Your task to perform on an android device: turn off picture-in-picture Image 0: 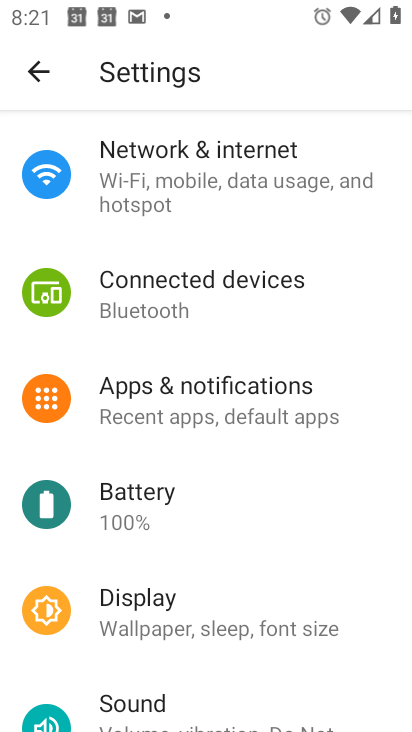
Step 0: press home button
Your task to perform on an android device: turn off picture-in-picture Image 1: 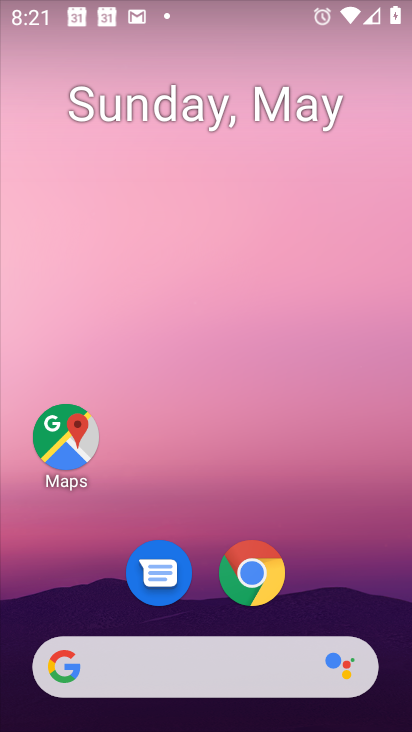
Step 1: click (262, 548)
Your task to perform on an android device: turn off picture-in-picture Image 2: 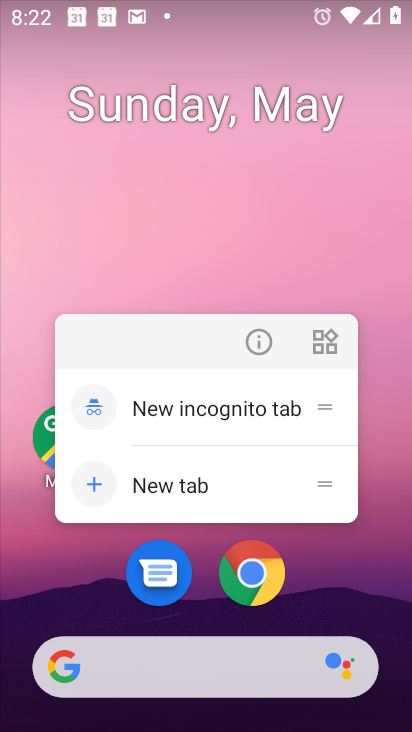
Step 2: click (258, 339)
Your task to perform on an android device: turn off picture-in-picture Image 3: 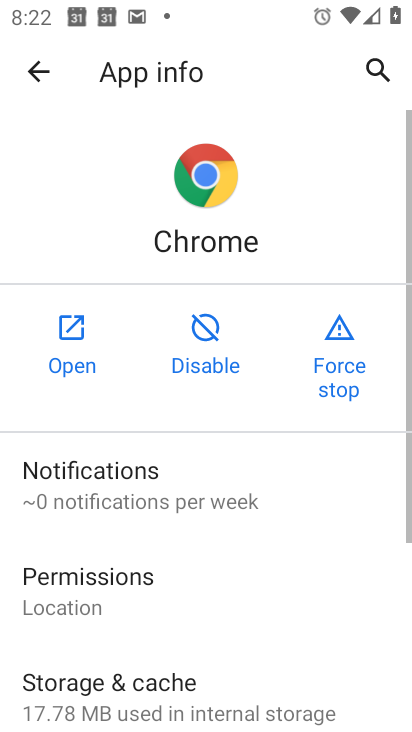
Step 3: drag from (243, 601) to (241, 132)
Your task to perform on an android device: turn off picture-in-picture Image 4: 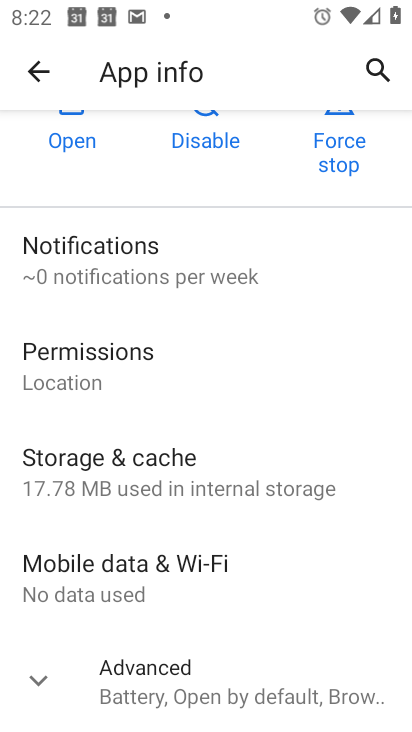
Step 4: click (37, 678)
Your task to perform on an android device: turn off picture-in-picture Image 5: 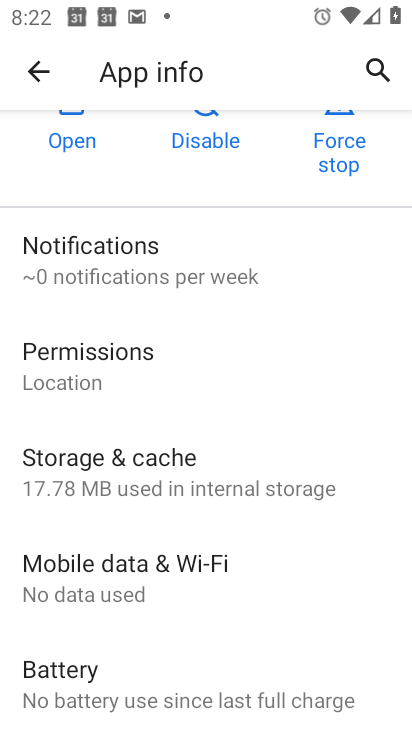
Step 5: drag from (285, 616) to (267, 143)
Your task to perform on an android device: turn off picture-in-picture Image 6: 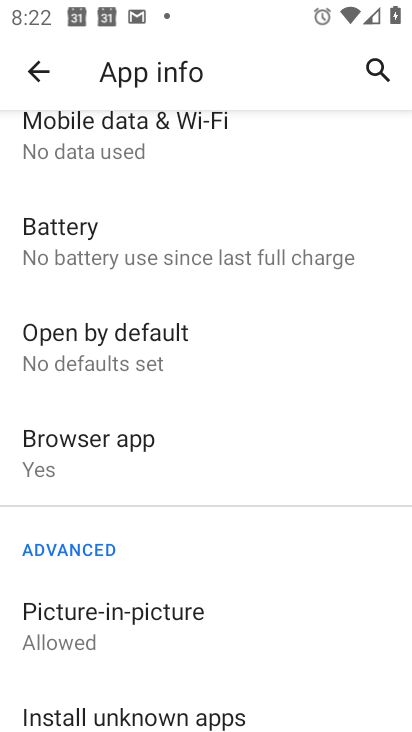
Step 6: click (197, 632)
Your task to perform on an android device: turn off picture-in-picture Image 7: 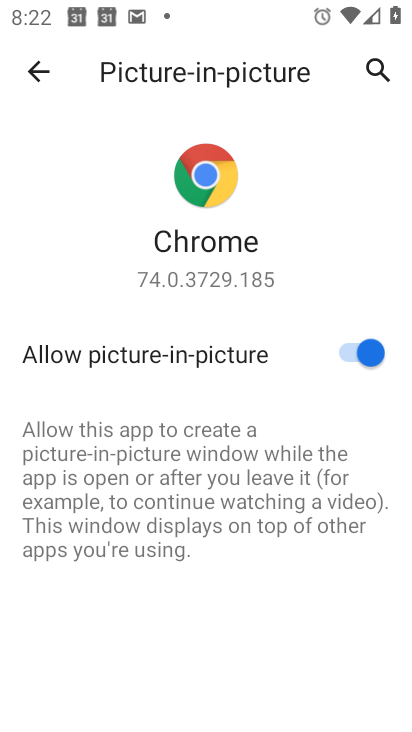
Step 7: click (354, 345)
Your task to perform on an android device: turn off picture-in-picture Image 8: 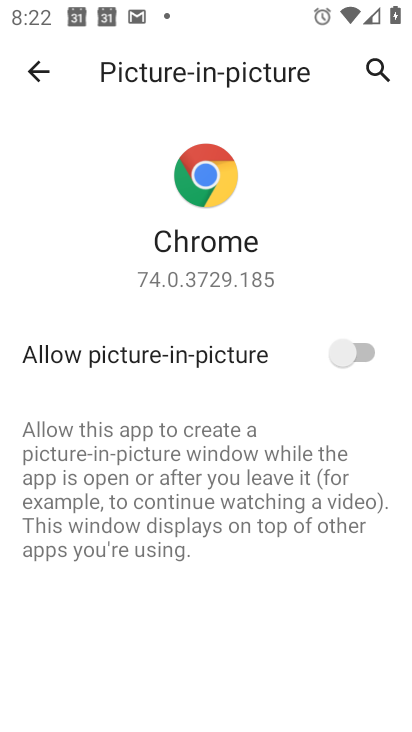
Step 8: task complete